Your task to perform on an android device: Clear the shopping cart on ebay. Search for rayovac triple a on ebay, select the first entry, and add it to the cart. Image 0: 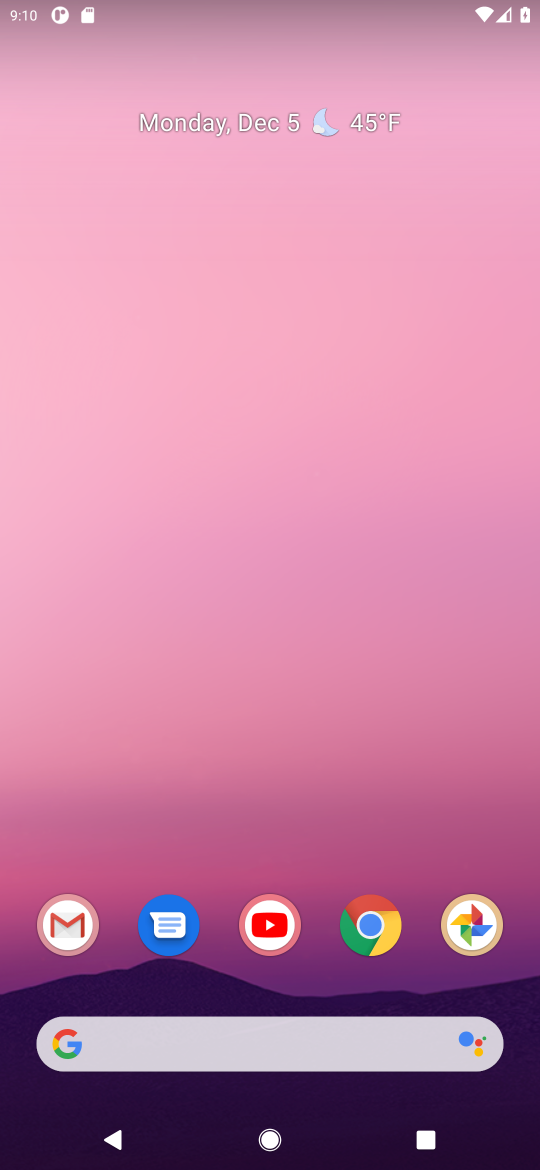
Step 0: click (367, 933)
Your task to perform on an android device: Clear the shopping cart on ebay. Search for rayovac triple a on ebay, select the first entry, and add it to the cart. Image 1: 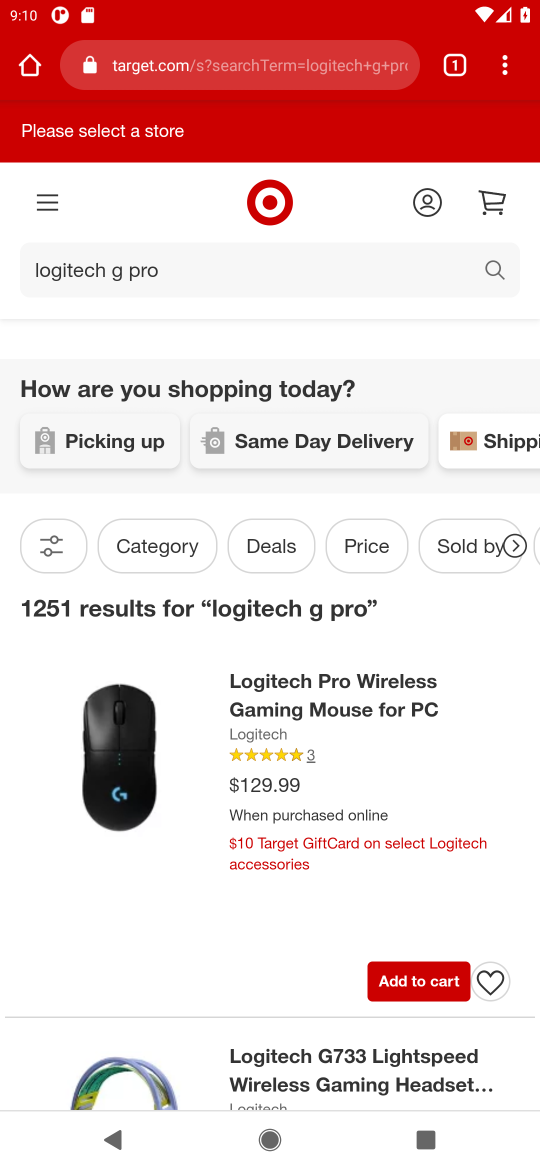
Step 1: click (217, 70)
Your task to perform on an android device: Clear the shopping cart on ebay. Search for rayovac triple a on ebay, select the first entry, and add it to the cart. Image 2: 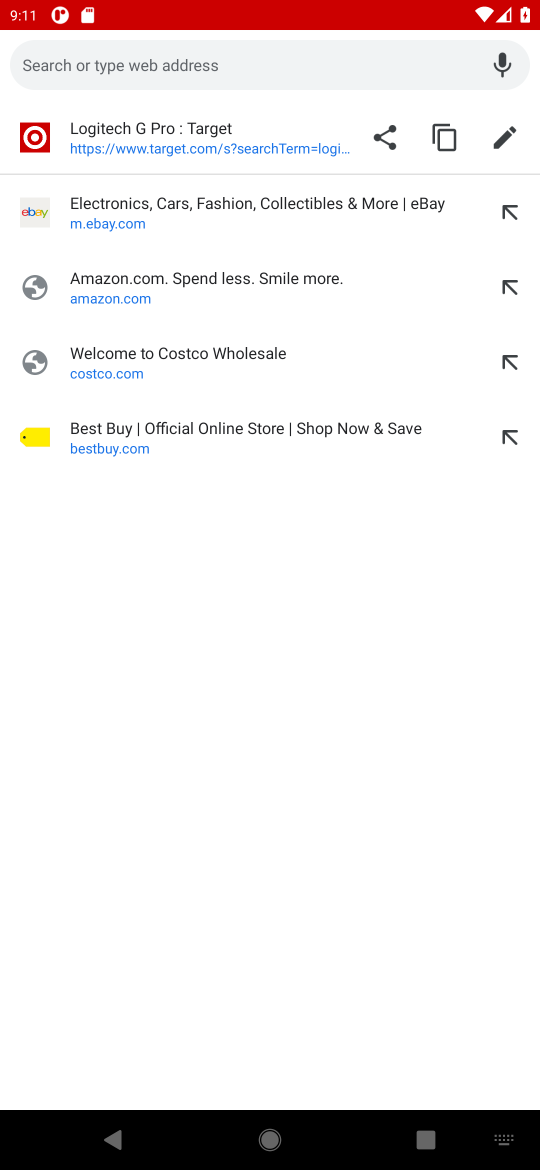
Step 2: click (96, 211)
Your task to perform on an android device: Clear the shopping cart on ebay. Search for rayovac triple a on ebay, select the first entry, and add it to the cart. Image 3: 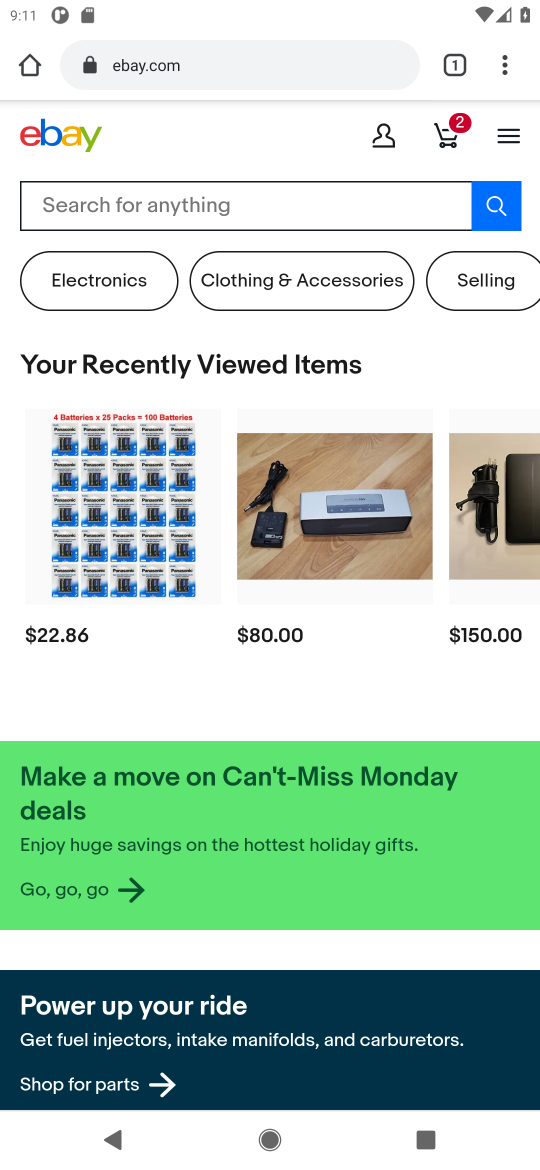
Step 3: click (450, 129)
Your task to perform on an android device: Clear the shopping cart on ebay. Search for rayovac triple a on ebay, select the first entry, and add it to the cart. Image 4: 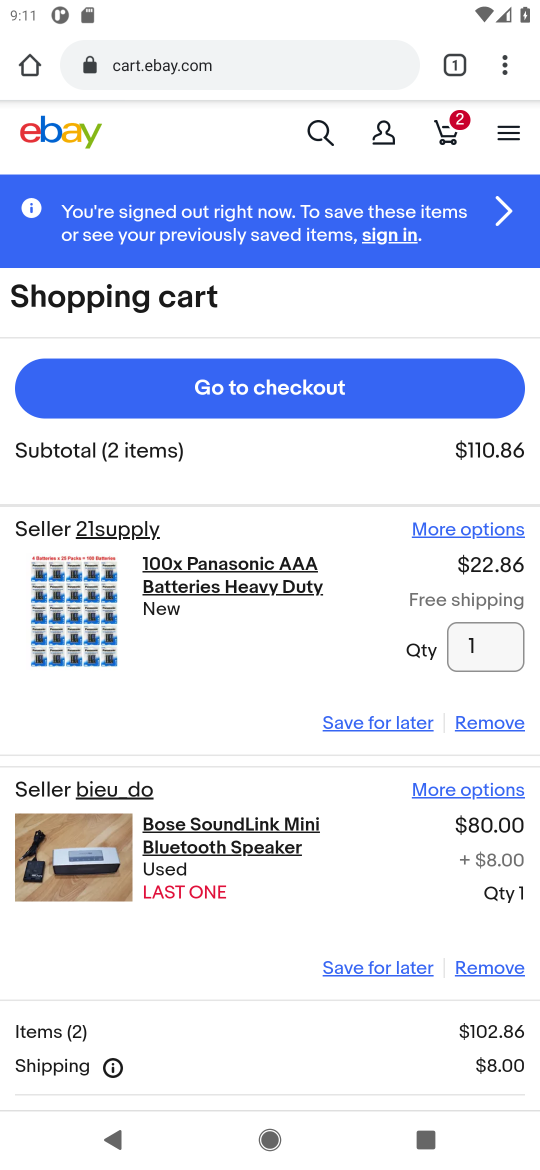
Step 4: click (476, 728)
Your task to perform on an android device: Clear the shopping cart on ebay. Search for rayovac triple a on ebay, select the first entry, and add it to the cart. Image 5: 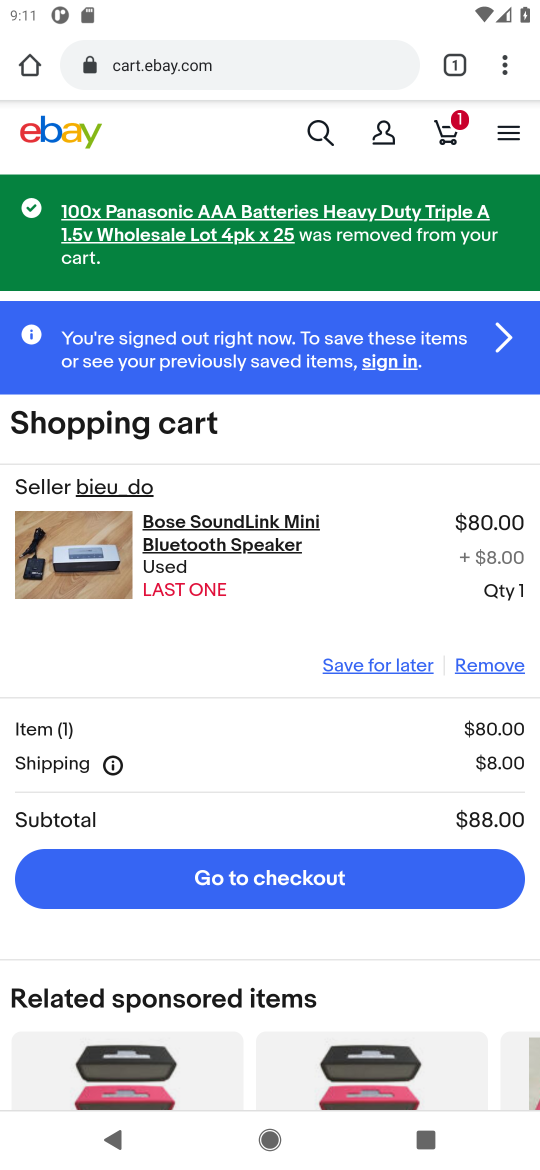
Step 5: click (484, 669)
Your task to perform on an android device: Clear the shopping cart on ebay. Search for rayovac triple a on ebay, select the first entry, and add it to the cart. Image 6: 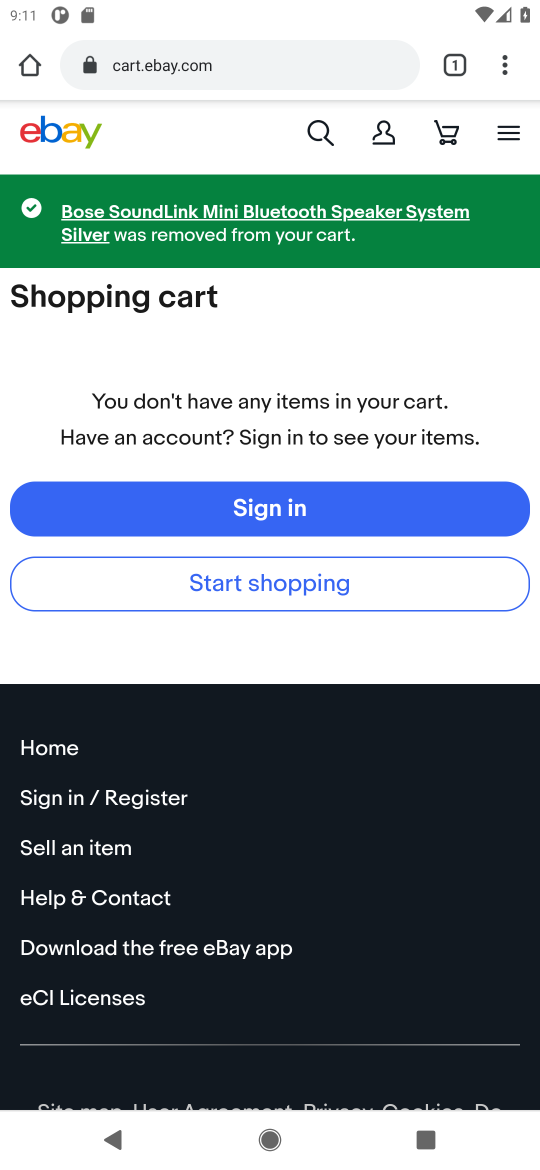
Step 6: click (322, 135)
Your task to perform on an android device: Clear the shopping cart on ebay. Search for rayovac triple a on ebay, select the first entry, and add it to the cart. Image 7: 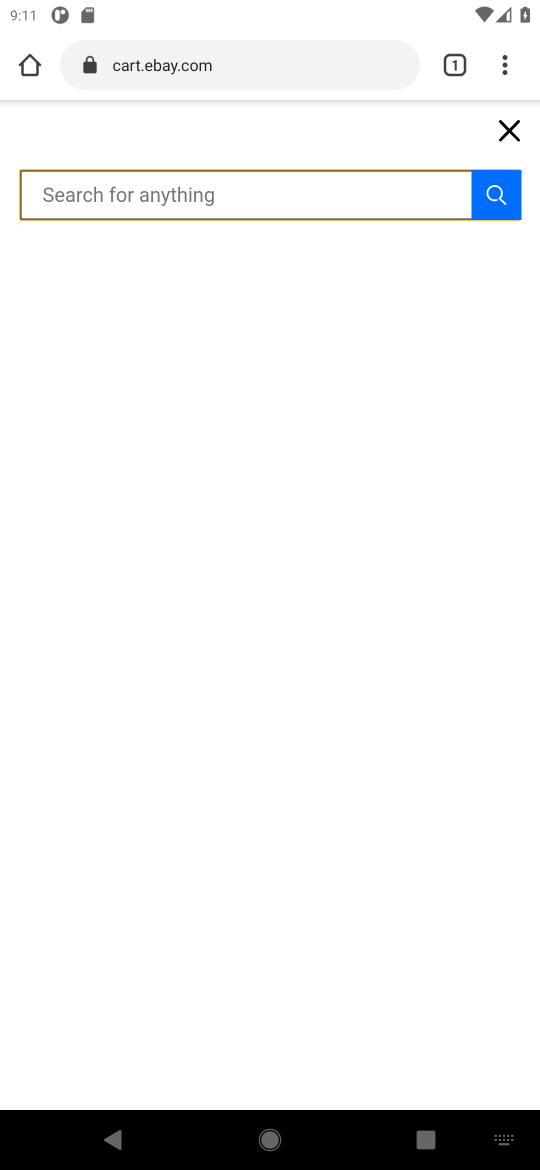
Step 7: type "rayovac triple a"
Your task to perform on an android device: Clear the shopping cart on ebay. Search for rayovac triple a on ebay, select the first entry, and add it to the cart. Image 8: 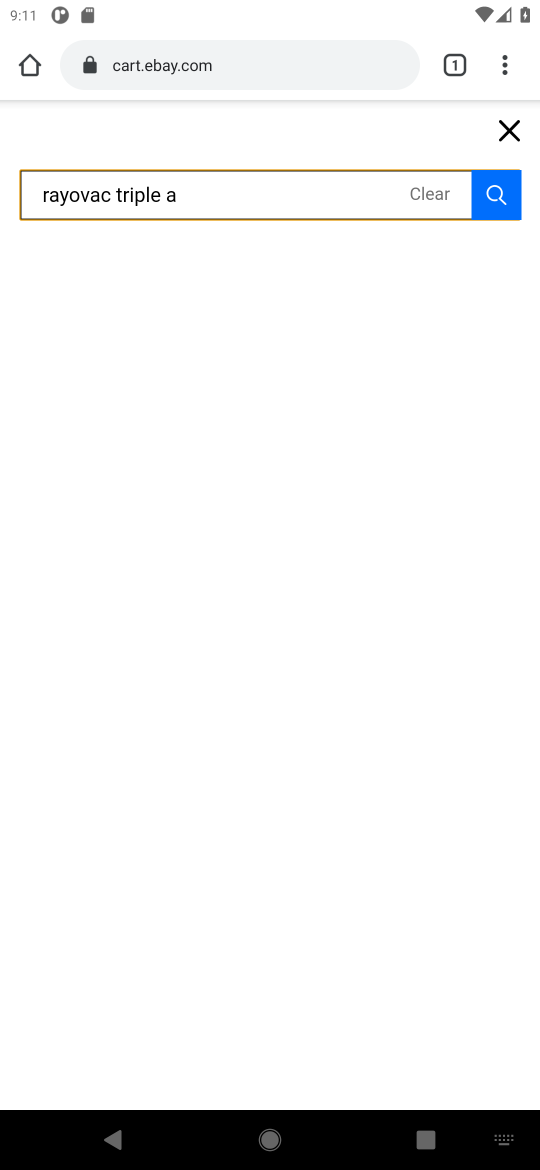
Step 8: click (492, 200)
Your task to perform on an android device: Clear the shopping cart on ebay. Search for rayovac triple a on ebay, select the first entry, and add it to the cart. Image 9: 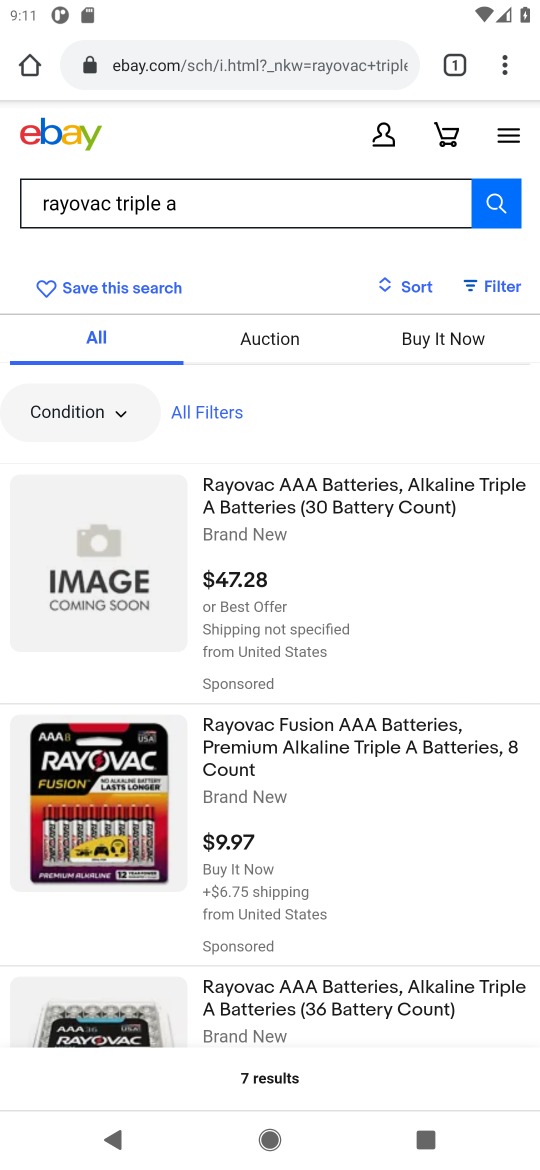
Step 9: click (263, 528)
Your task to perform on an android device: Clear the shopping cart on ebay. Search for rayovac triple a on ebay, select the first entry, and add it to the cart. Image 10: 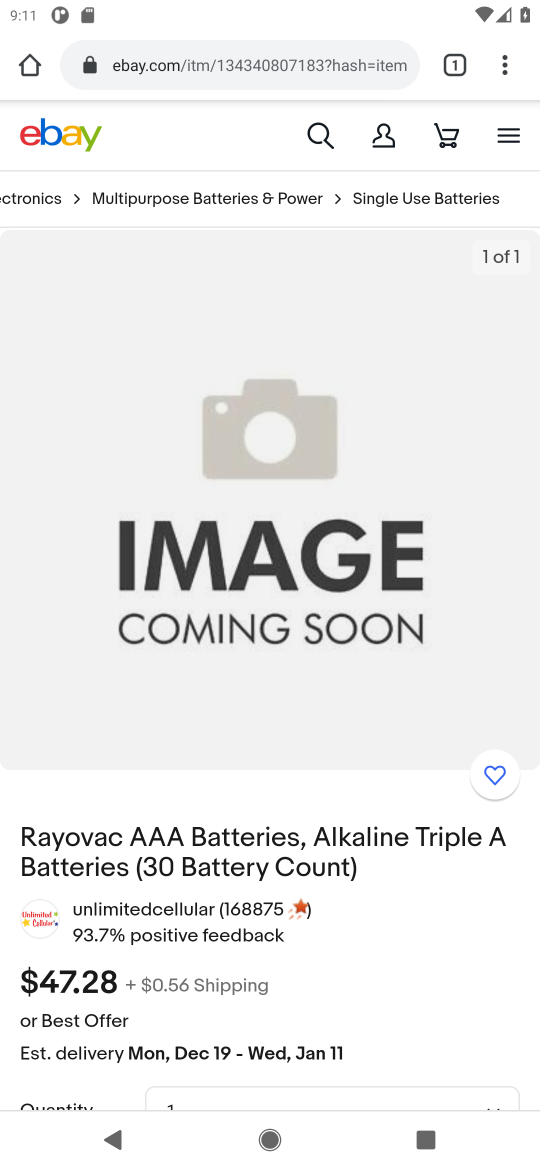
Step 10: drag from (379, 873) to (310, 362)
Your task to perform on an android device: Clear the shopping cart on ebay. Search for rayovac triple a on ebay, select the first entry, and add it to the cart. Image 11: 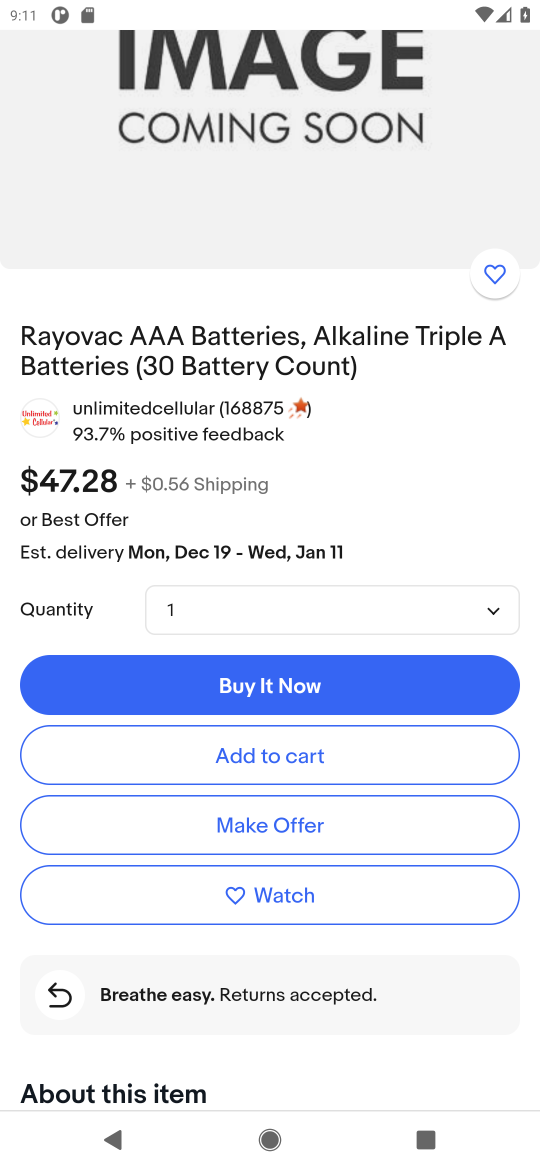
Step 11: click (230, 755)
Your task to perform on an android device: Clear the shopping cart on ebay. Search for rayovac triple a on ebay, select the first entry, and add it to the cart. Image 12: 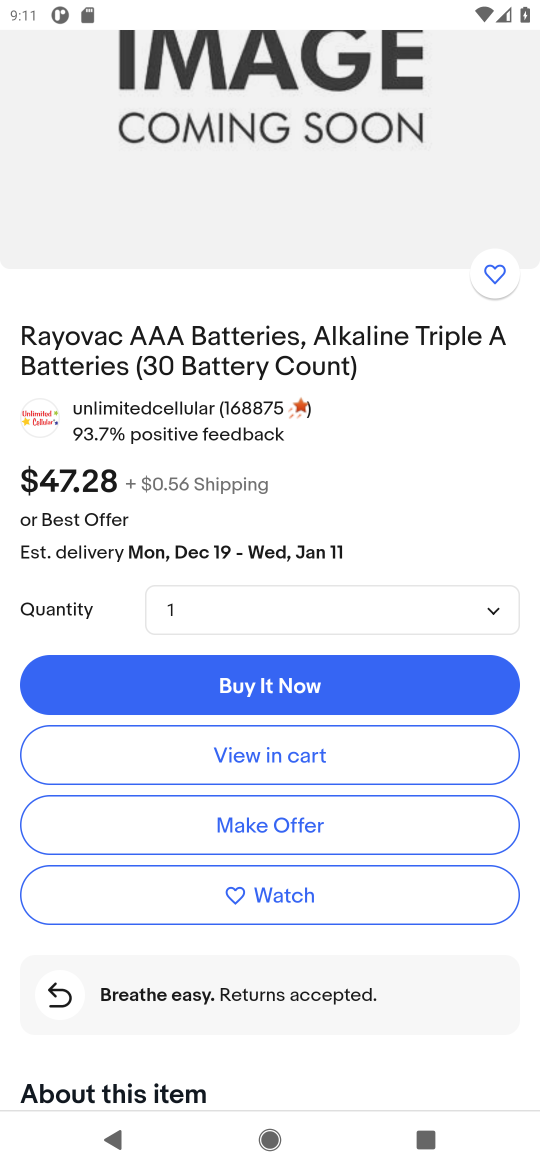
Step 12: task complete